Your task to perform on an android device: Open Android settings Image 0: 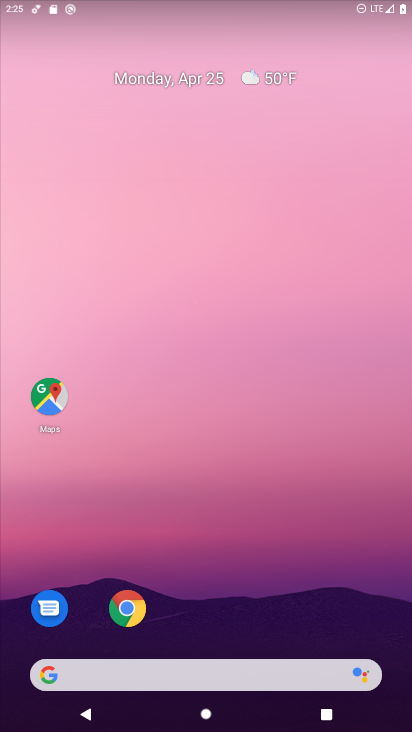
Step 0: drag from (300, 613) to (259, 88)
Your task to perform on an android device: Open Android settings Image 1: 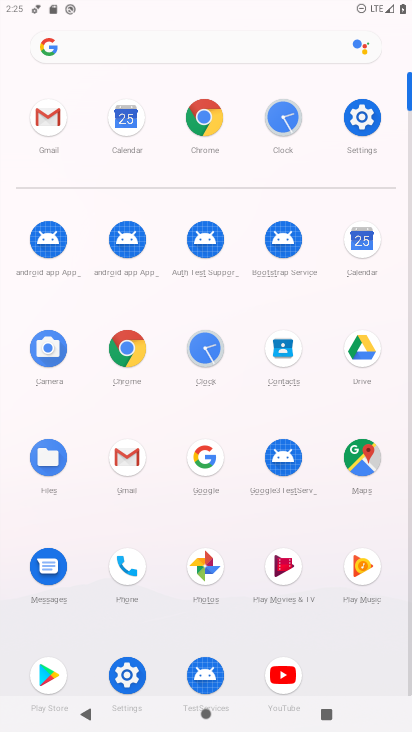
Step 1: click (368, 122)
Your task to perform on an android device: Open Android settings Image 2: 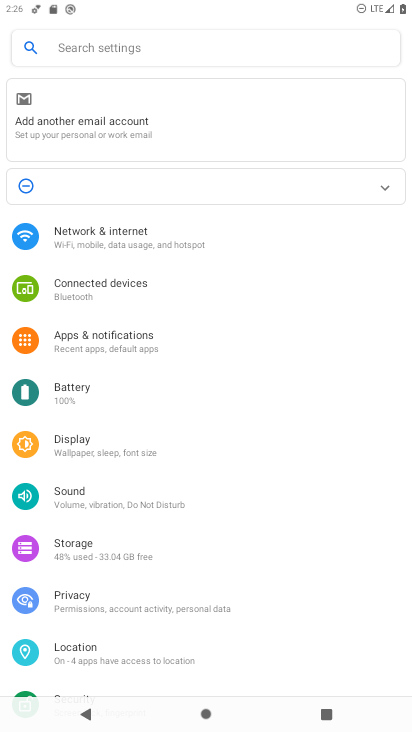
Step 2: drag from (100, 636) to (197, 94)
Your task to perform on an android device: Open Android settings Image 3: 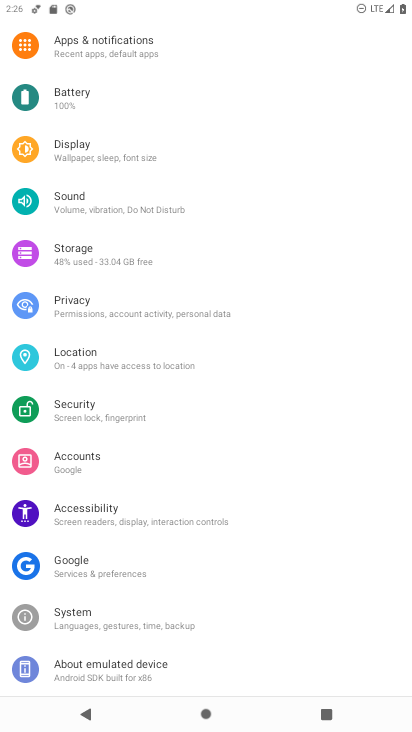
Step 3: click (130, 668)
Your task to perform on an android device: Open Android settings Image 4: 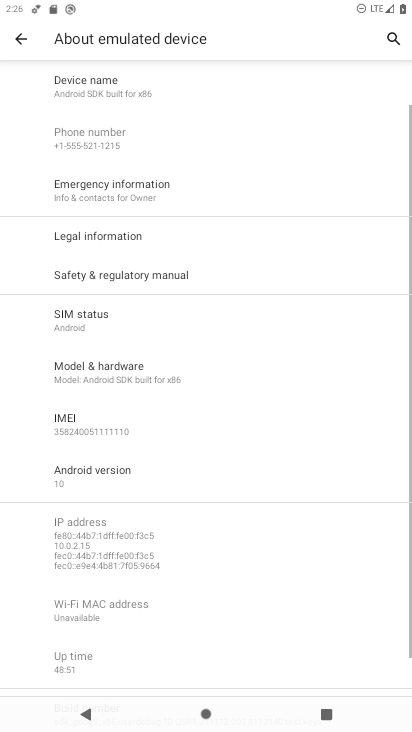
Step 4: click (113, 479)
Your task to perform on an android device: Open Android settings Image 5: 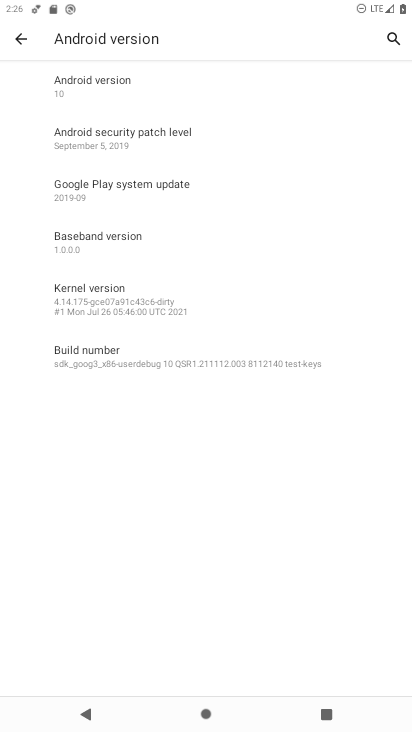
Step 5: task complete